Your task to perform on an android device: choose inbox layout in the gmail app Image 0: 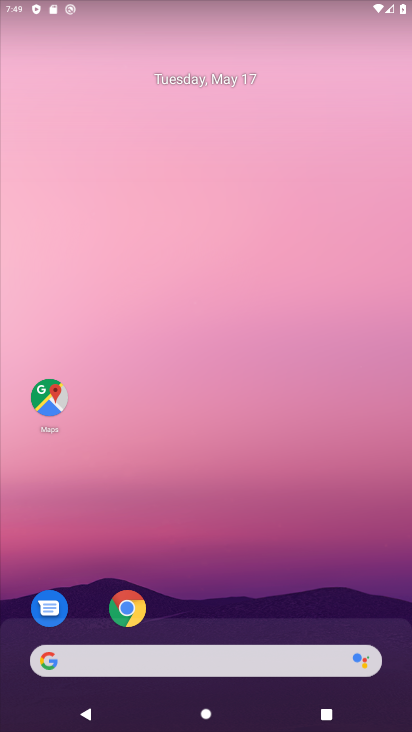
Step 0: drag from (196, 659) to (214, 153)
Your task to perform on an android device: choose inbox layout in the gmail app Image 1: 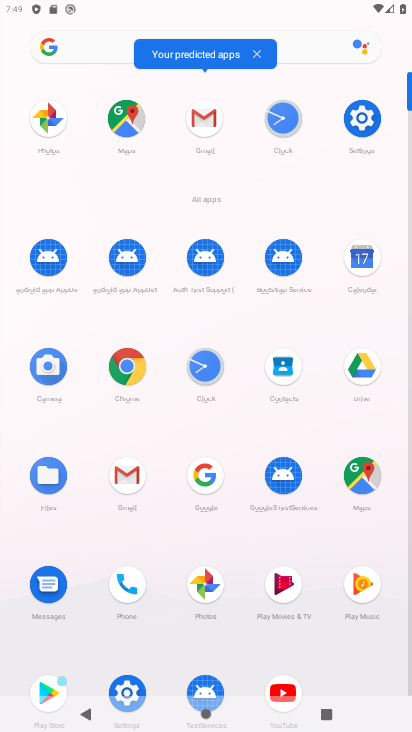
Step 1: click (132, 466)
Your task to perform on an android device: choose inbox layout in the gmail app Image 2: 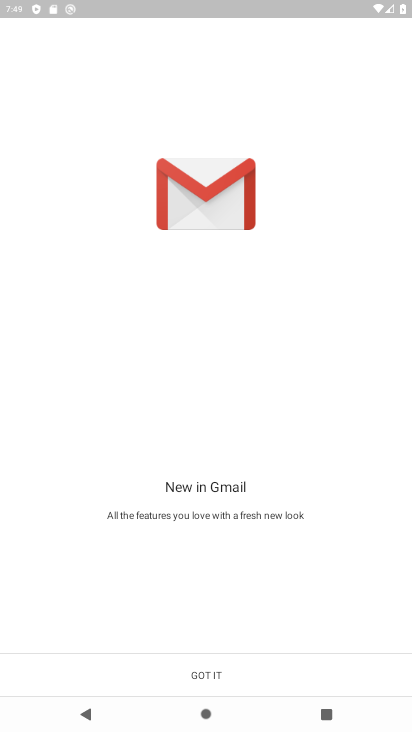
Step 2: click (193, 678)
Your task to perform on an android device: choose inbox layout in the gmail app Image 3: 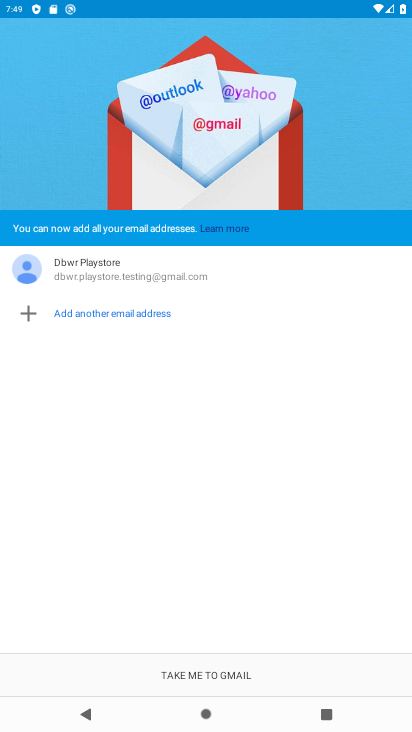
Step 3: click (193, 678)
Your task to perform on an android device: choose inbox layout in the gmail app Image 4: 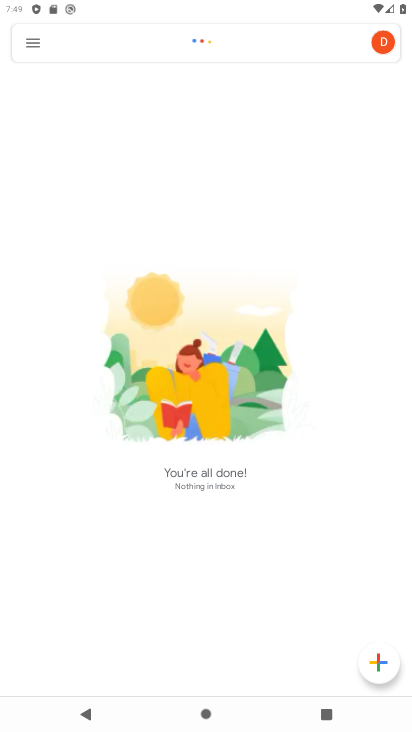
Step 4: click (25, 43)
Your task to perform on an android device: choose inbox layout in the gmail app Image 5: 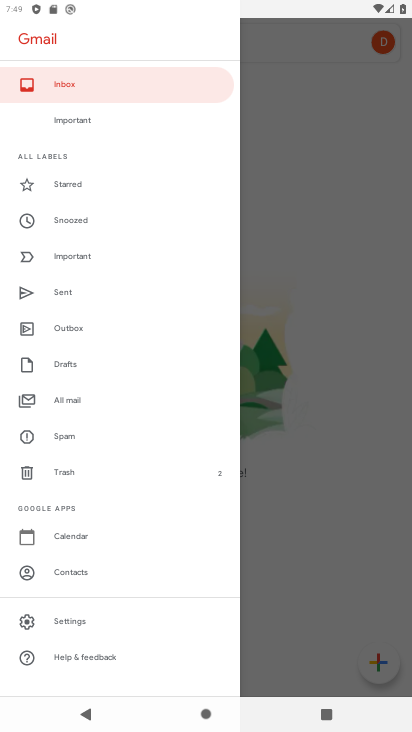
Step 5: click (79, 614)
Your task to perform on an android device: choose inbox layout in the gmail app Image 6: 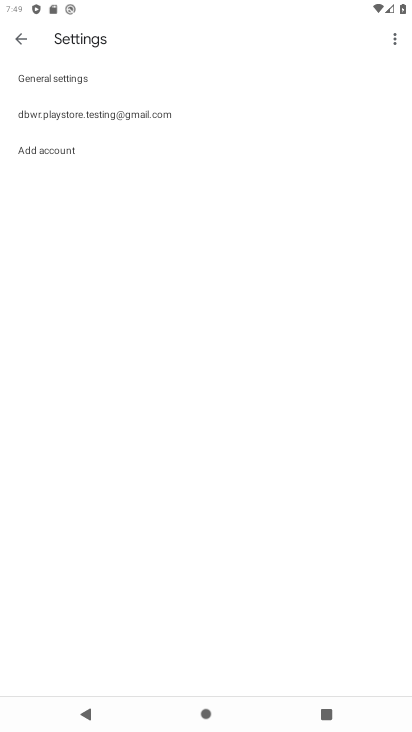
Step 6: click (83, 106)
Your task to perform on an android device: choose inbox layout in the gmail app Image 7: 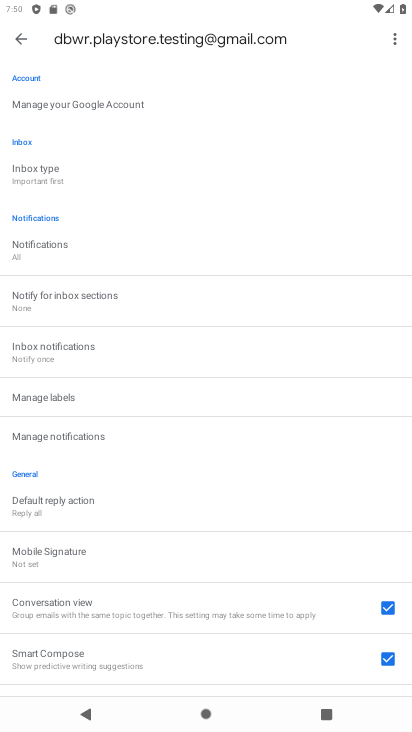
Step 7: click (28, 176)
Your task to perform on an android device: choose inbox layout in the gmail app Image 8: 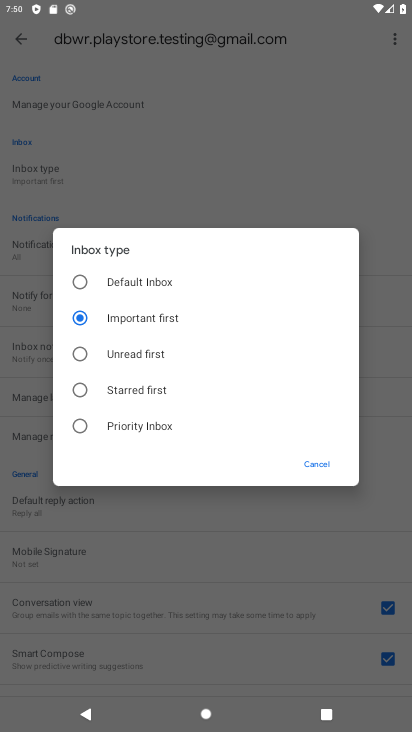
Step 8: click (91, 428)
Your task to perform on an android device: choose inbox layout in the gmail app Image 9: 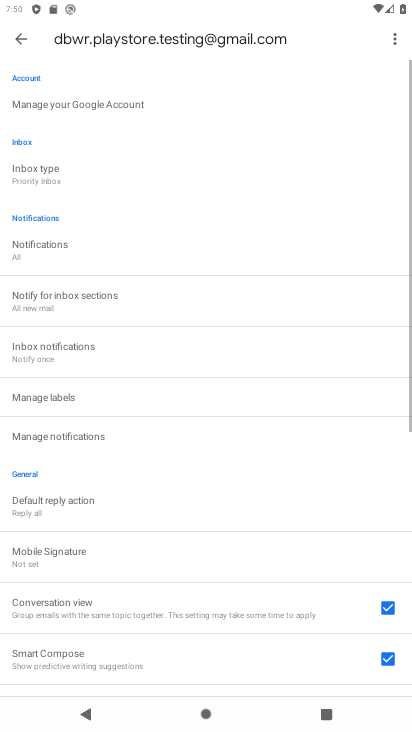
Step 9: task complete